Your task to perform on an android device: turn off sleep mode Image 0: 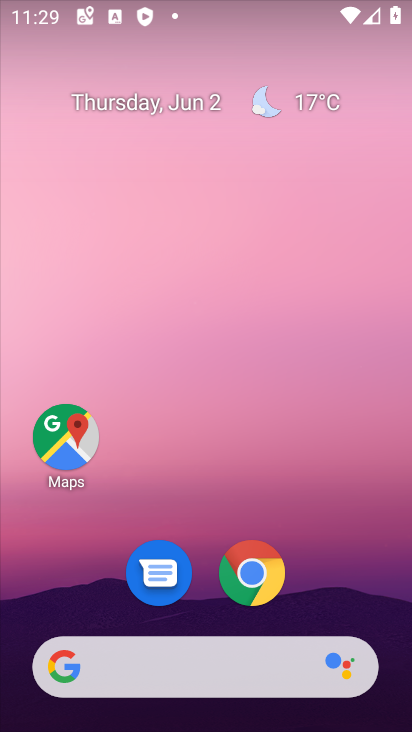
Step 0: drag from (393, 402) to (285, 28)
Your task to perform on an android device: turn off sleep mode Image 1: 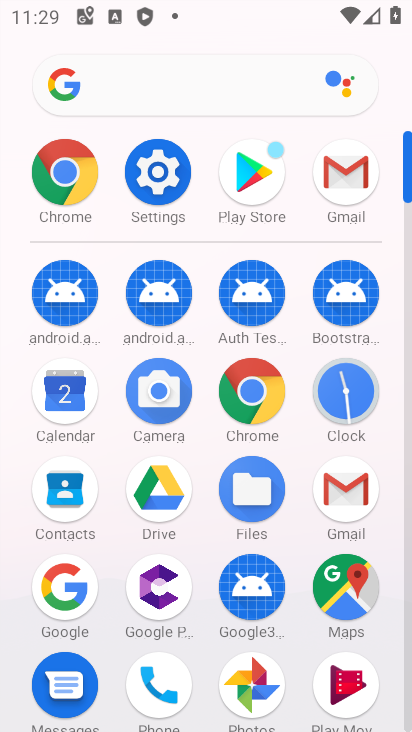
Step 1: click (175, 191)
Your task to perform on an android device: turn off sleep mode Image 2: 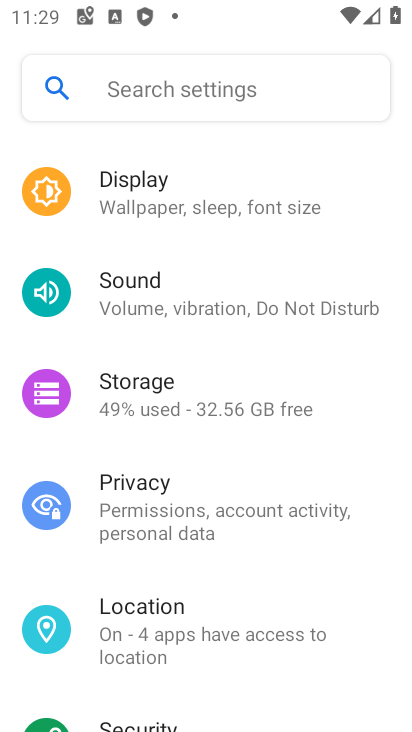
Step 2: drag from (239, 619) to (294, 165)
Your task to perform on an android device: turn off sleep mode Image 3: 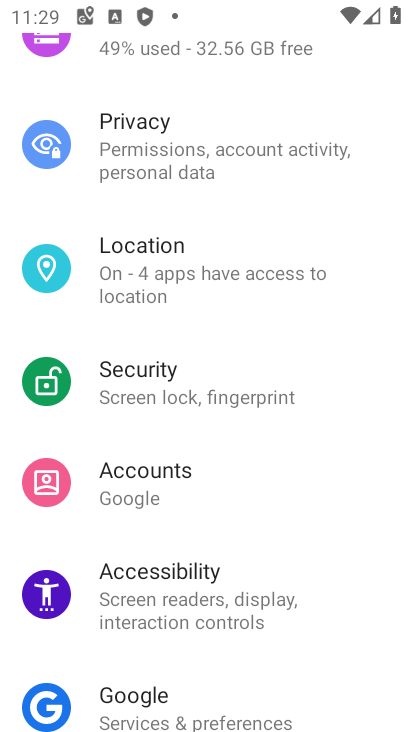
Step 3: drag from (266, 632) to (317, 180)
Your task to perform on an android device: turn off sleep mode Image 4: 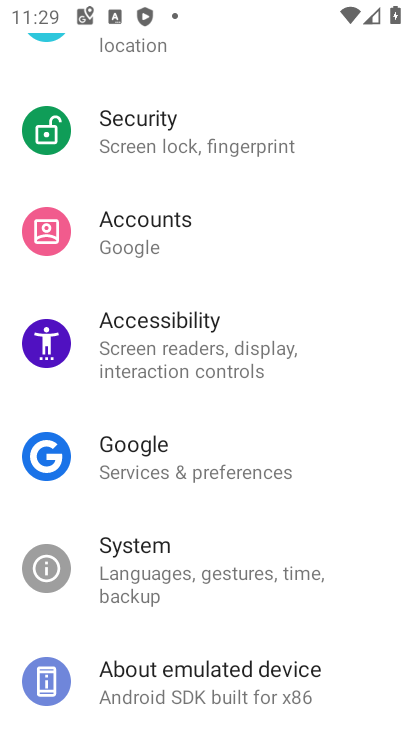
Step 4: drag from (317, 180) to (273, 721)
Your task to perform on an android device: turn off sleep mode Image 5: 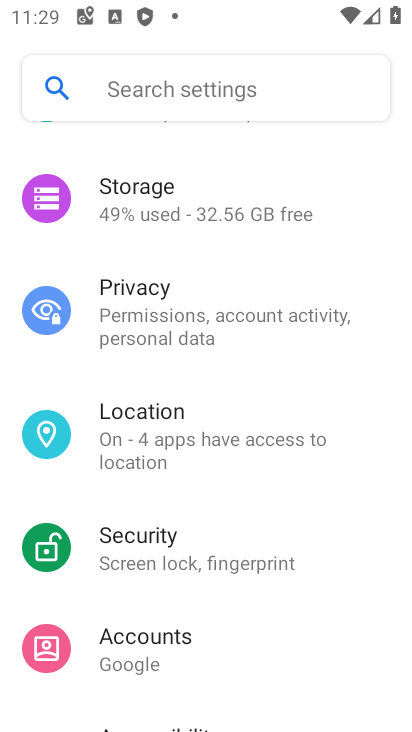
Step 5: drag from (245, 250) to (235, 677)
Your task to perform on an android device: turn off sleep mode Image 6: 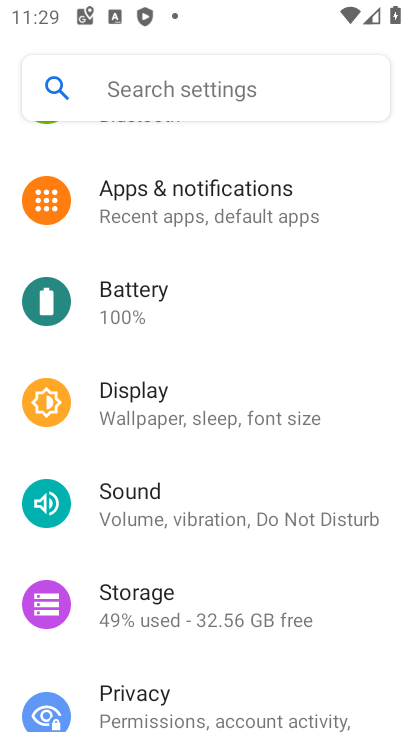
Step 6: drag from (295, 228) to (265, 650)
Your task to perform on an android device: turn off sleep mode Image 7: 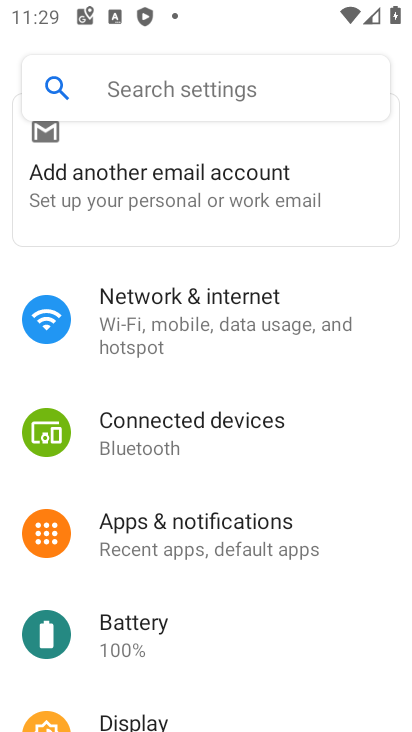
Step 7: drag from (265, 650) to (340, 193)
Your task to perform on an android device: turn off sleep mode Image 8: 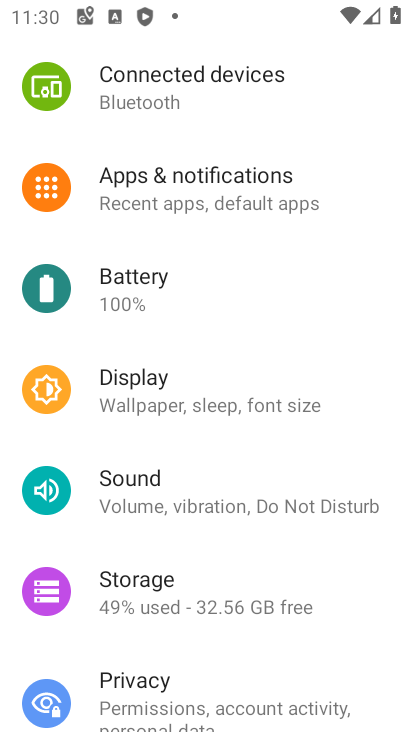
Step 8: click (129, 403)
Your task to perform on an android device: turn off sleep mode Image 9: 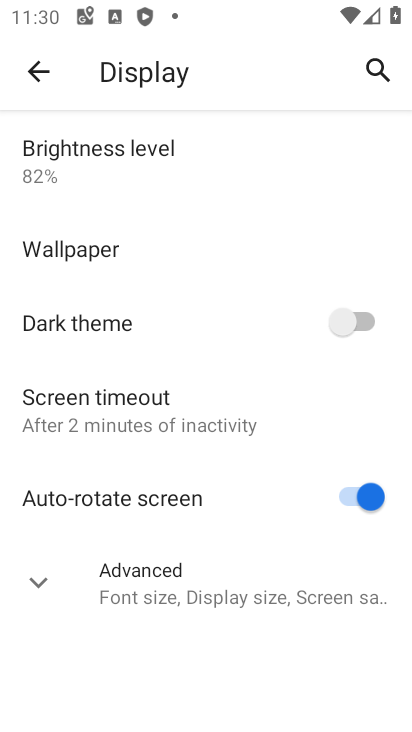
Step 9: click (89, 414)
Your task to perform on an android device: turn off sleep mode Image 10: 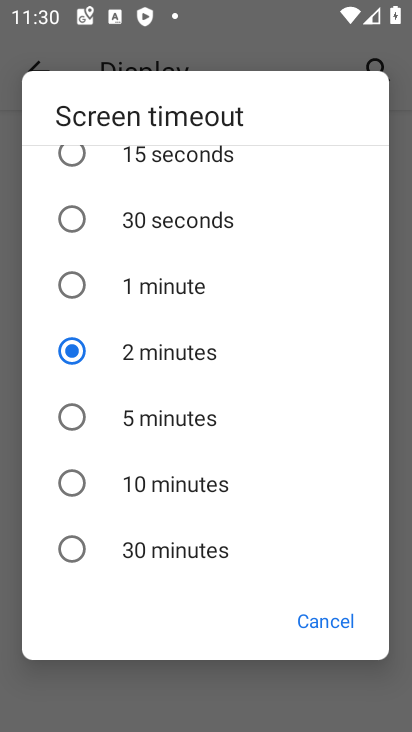
Step 10: task complete